Your task to perform on an android device: Open Wikipedia Image 0: 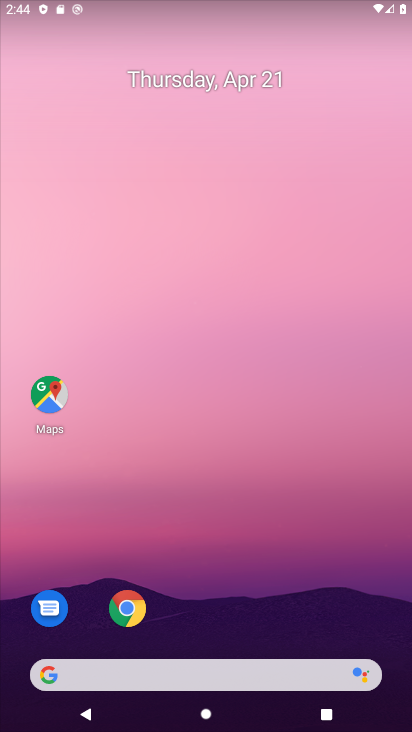
Step 0: drag from (327, 528) to (365, 25)
Your task to perform on an android device: Open Wikipedia Image 1: 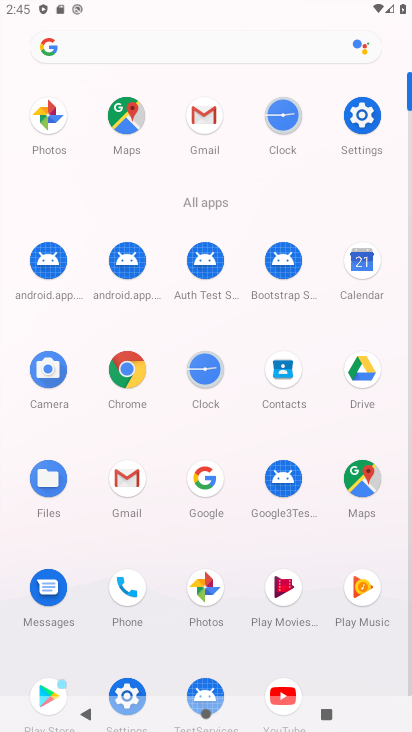
Step 1: click (132, 372)
Your task to perform on an android device: Open Wikipedia Image 2: 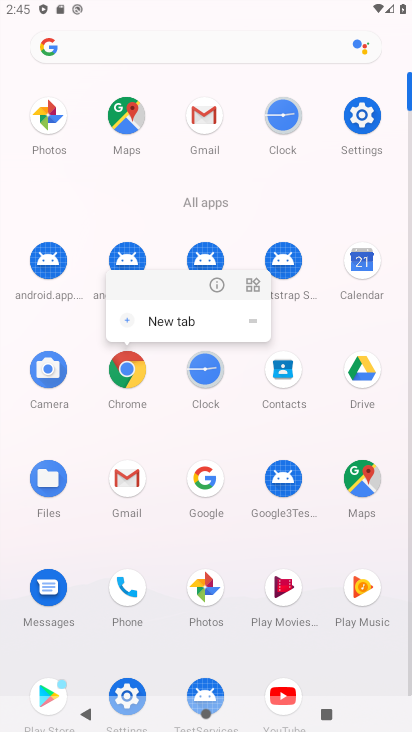
Step 2: click (140, 368)
Your task to perform on an android device: Open Wikipedia Image 3: 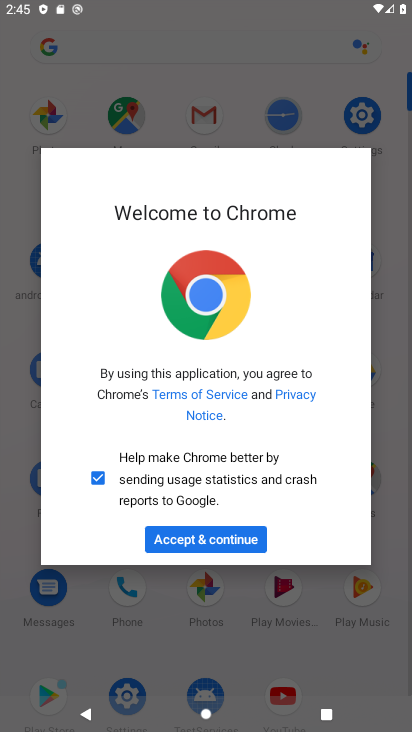
Step 3: click (209, 539)
Your task to perform on an android device: Open Wikipedia Image 4: 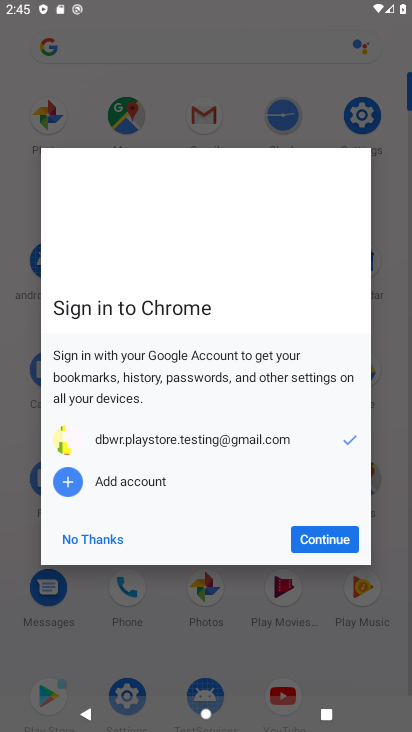
Step 4: click (75, 532)
Your task to perform on an android device: Open Wikipedia Image 5: 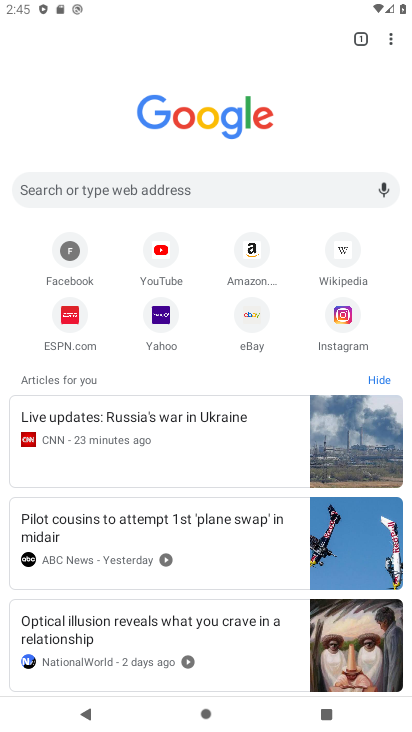
Step 5: click (326, 262)
Your task to perform on an android device: Open Wikipedia Image 6: 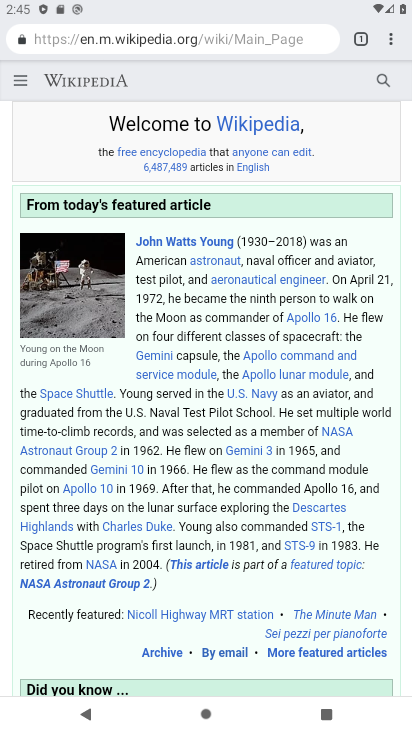
Step 6: task complete